Your task to perform on an android device: Do I have any events tomorrow? Image 0: 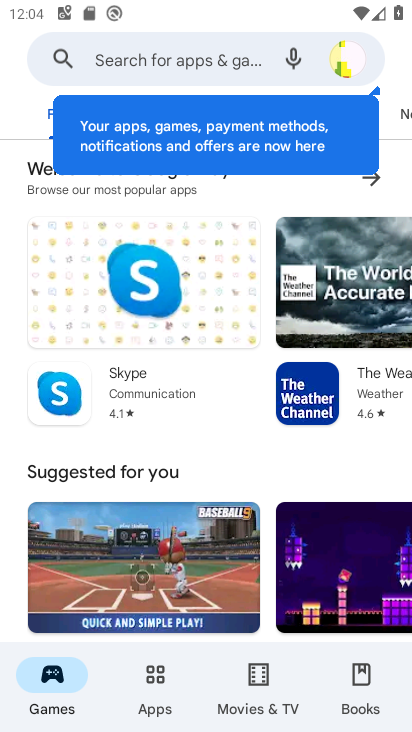
Step 0: press home button
Your task to perform on an android device: Do I have any events tomorrow? Image 1: 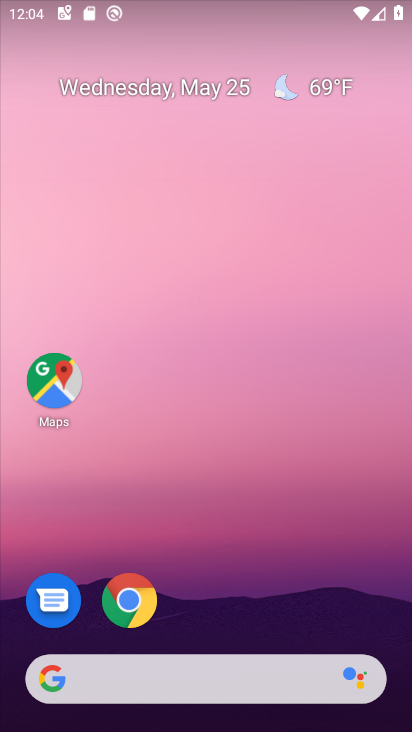
Step 1: drag from (379, 619) to (337, 168)
Your task to perform on an android device: Do I have any events tomorrow? Image 2: 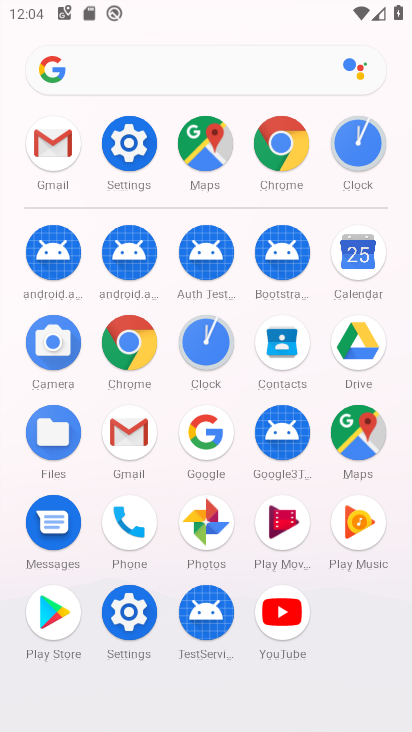
Step 2: click (355, 285)
Your task to perform on an android device: Do I have any events tomorrow? Image 3: 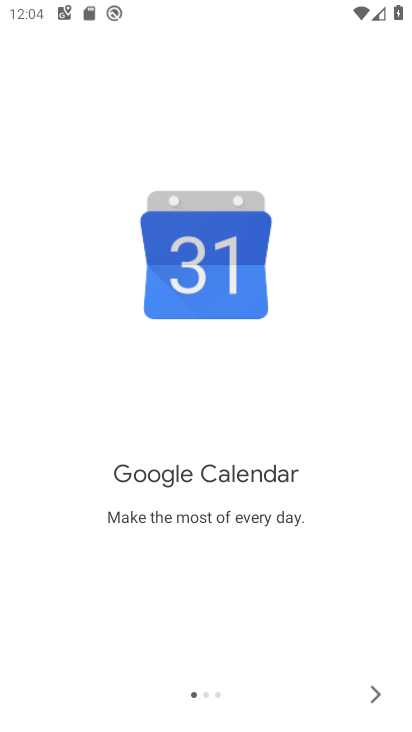
Step 3: click (373, 690)
Your task to perform on an android device: Do I have any events tomorrow? Image 4: 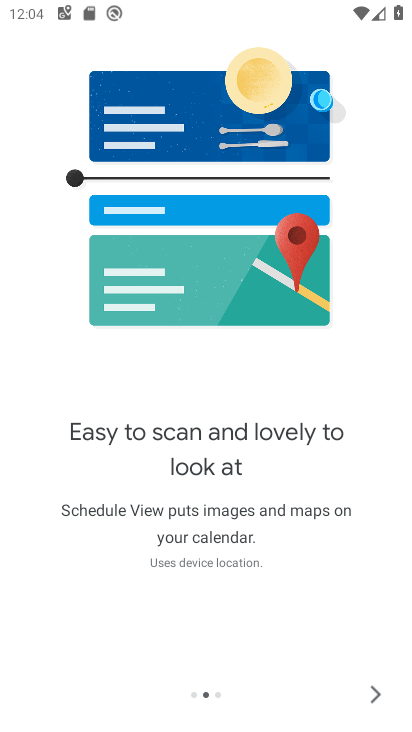
Step 4: click (373, 690)
Your task to perform on an android device: Do I have any events tomorrow? Image 5: 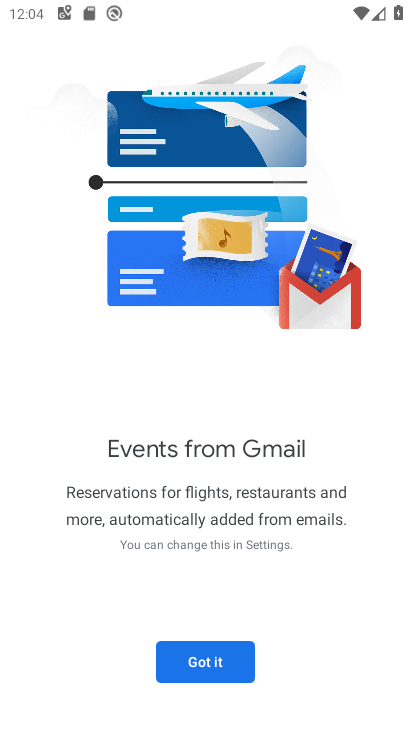
Step 5: click (240, 658)
Your task to perform on an android device: Do I have any events tomorrow? Image 6: 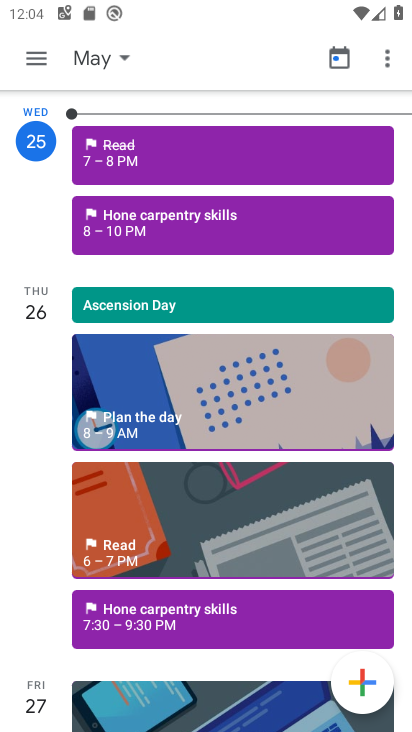
Step 6: click (128, 407)
Your task to perform on an android device: Do I have any events tomorrow? Image 7: 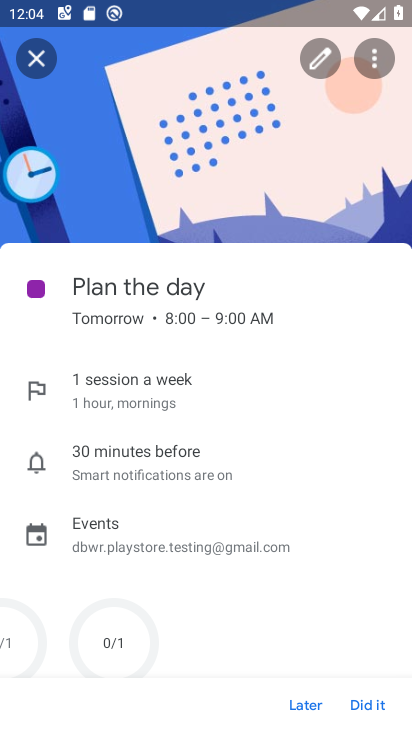
Step 7: task complete